Your task to perform on an android device: change the clock display to analog Image 0: 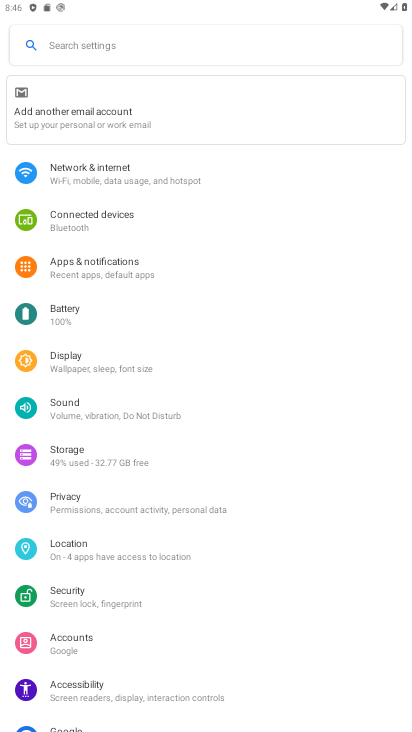
Step 0: press home button
Your task to perform on an android device: change the clock display to analog Image 1: 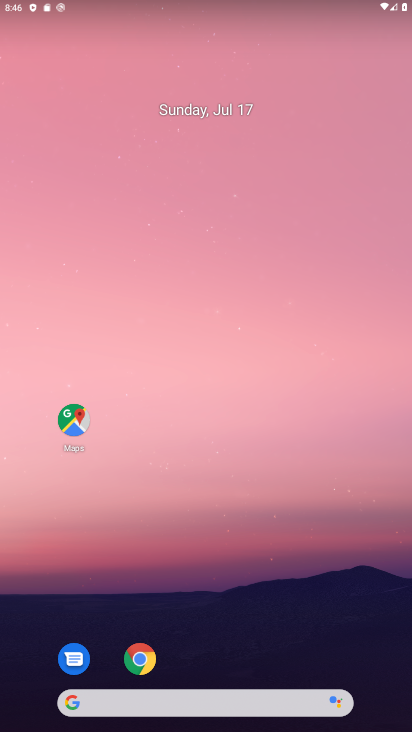
Step 1: drag from (190, 699) to (282, 205)
Your task to perform on an android device: change the clock display to analog Image 2: 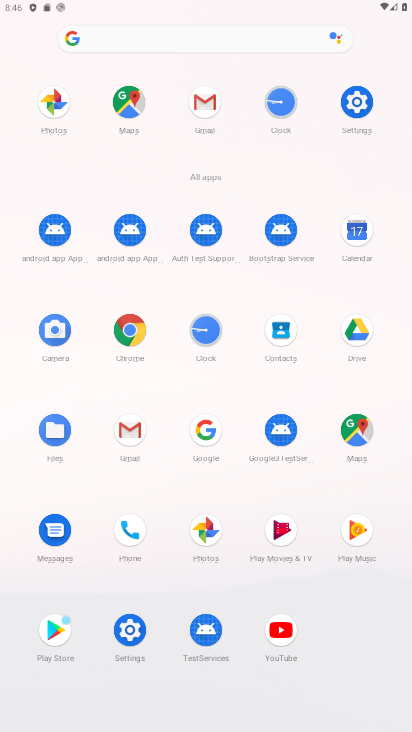
Step 2: click (202, 320)
Your task to perform on an android device: change the clock display to analog Image 3: 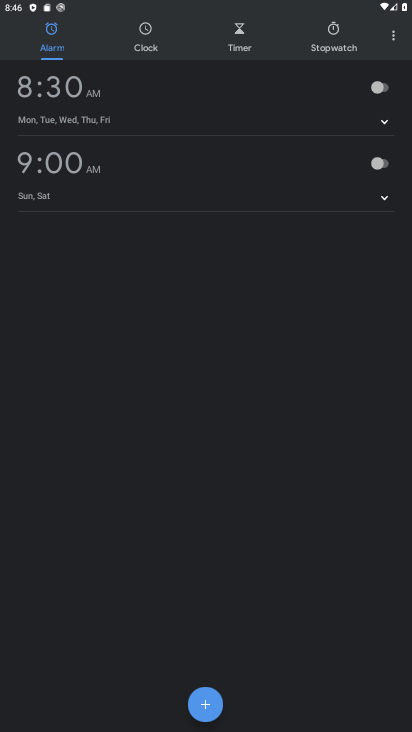
Step 3: click (397, 37)
Your task to perform on an android device: change the clock display to analog Image 4: 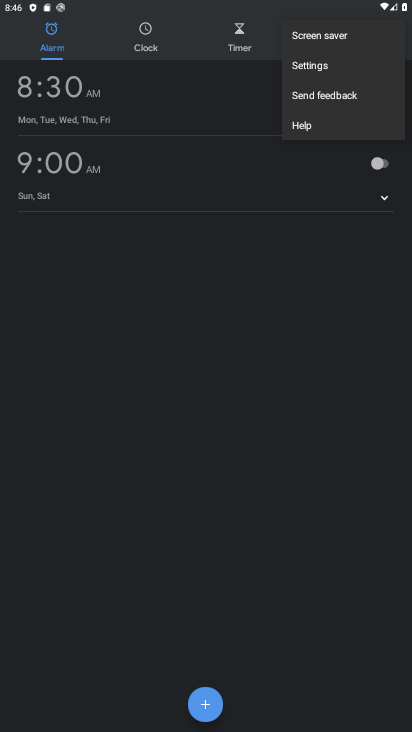
Step 4: click (324, 64)
Your task to perform on an android device: change the clock display to analog Image 5: 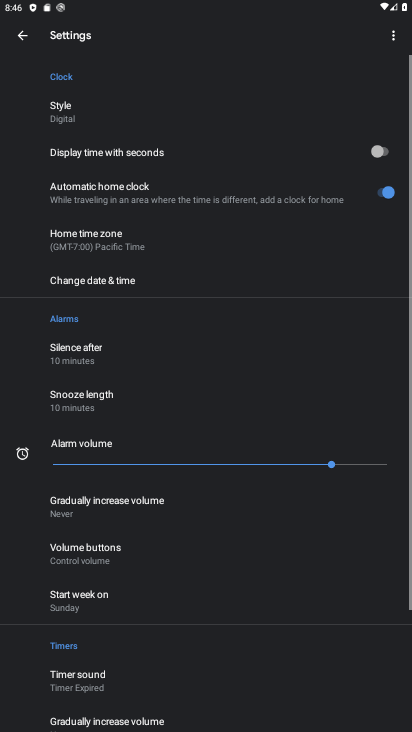
Step 5: click (63, 115)
Your task to perform on an android device: change the clock display to analog Image 6: 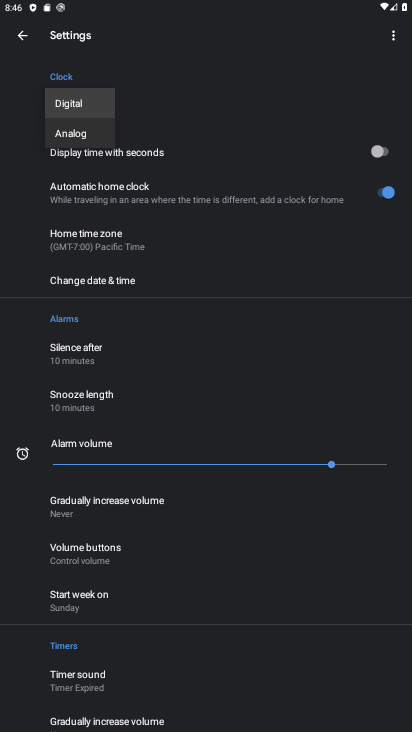
Step 6: click (97, 133)
Your task to perform on an android device: change the clock display to analog Image 7: 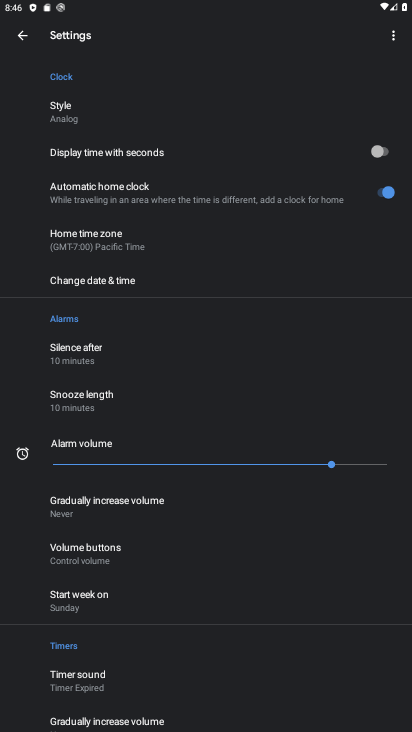
Step 7: task complete